Your task to perform on an android device: clear all cookies in the chrome app Image 0: 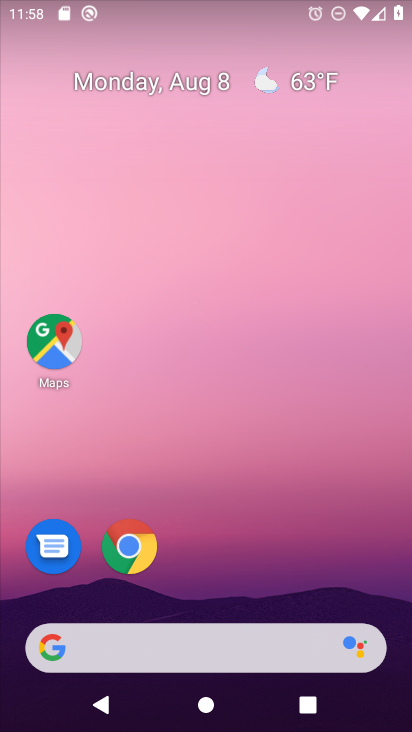
Step 0: drag from (233, 586) to (275, 177)
Your task to perform on an android device: clear all cookies in the chrome app Image 1: 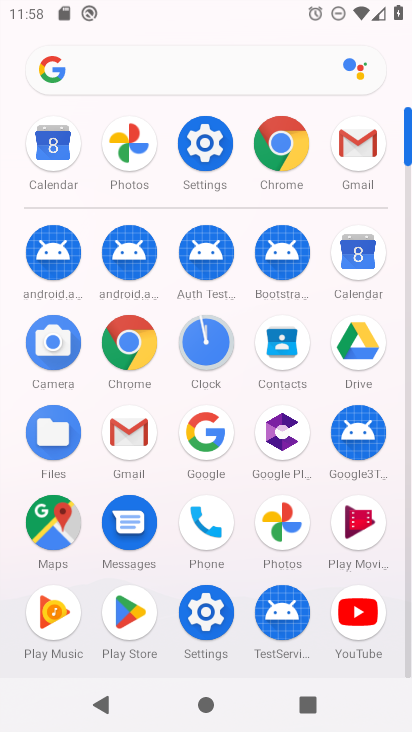
Step 1: click (278, 133)
Your task to perform on an android device: clear all cookies in the chrome app Image 2: 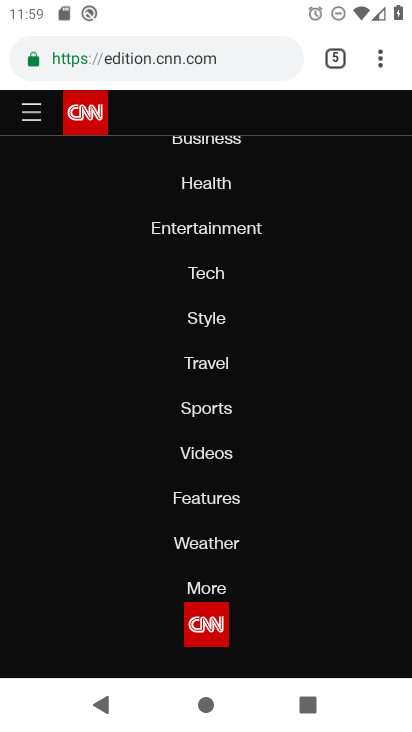
Step 2: click (379, 54)
Your task to perform on an android device: clear all cookies in the chrome app Image 3: 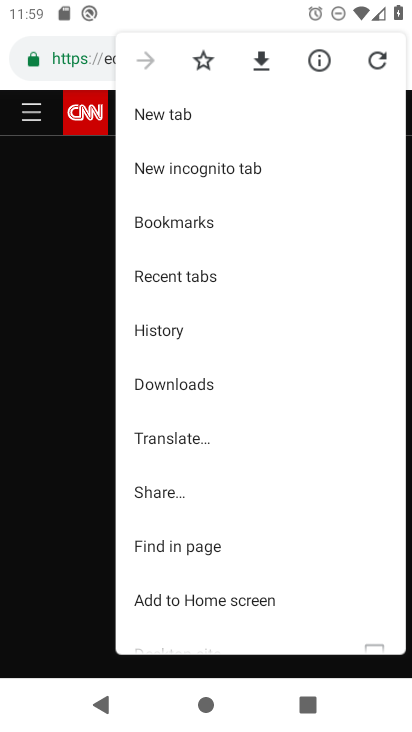
Step 3: click (189, 329)
Your task to perform on an android device: clear all cookies in the chrome app Image 4: 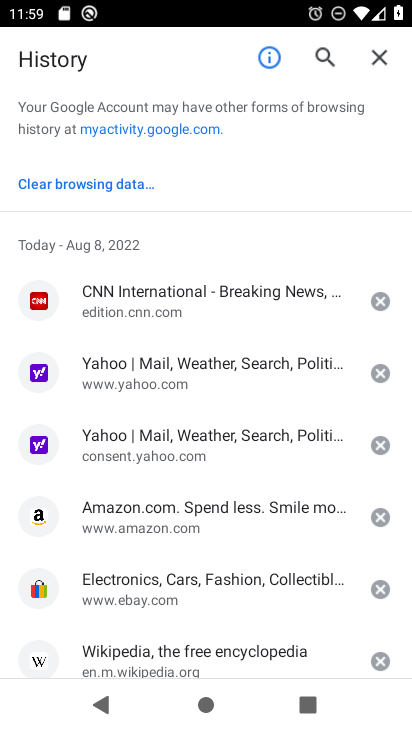
Step 4: click (83, 178)
Your task to perform on an android device: clear all cookies in the chrome app Image 5: 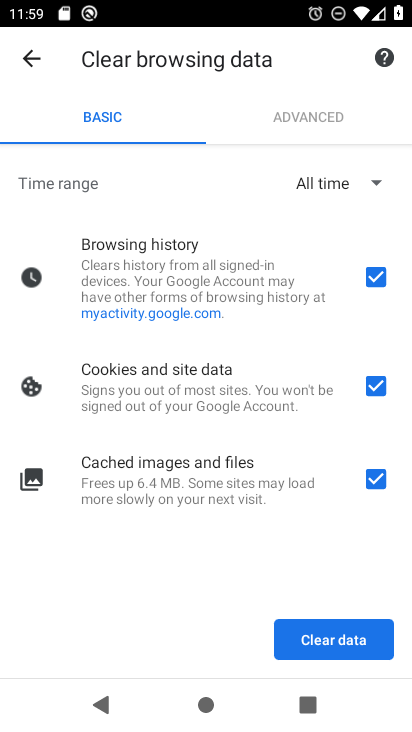
Step 5: click (375, 275)
Your task to perform on an android device: clear all cookies in the chrome app Image 6: 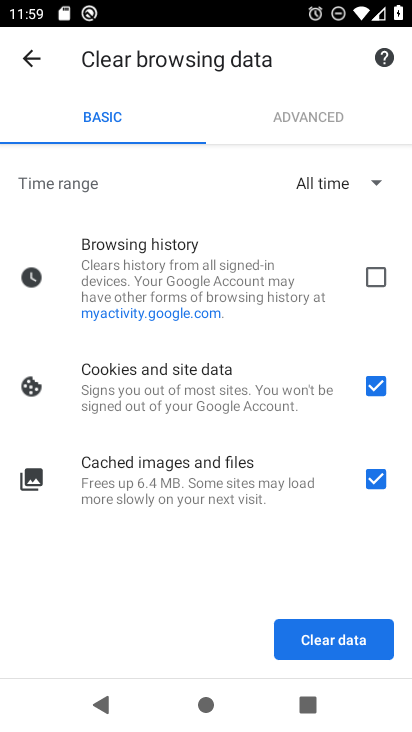
Step 6: click (374, 482)
Your task to perform on an android device: clear all cookies in the chrome app Image 7: 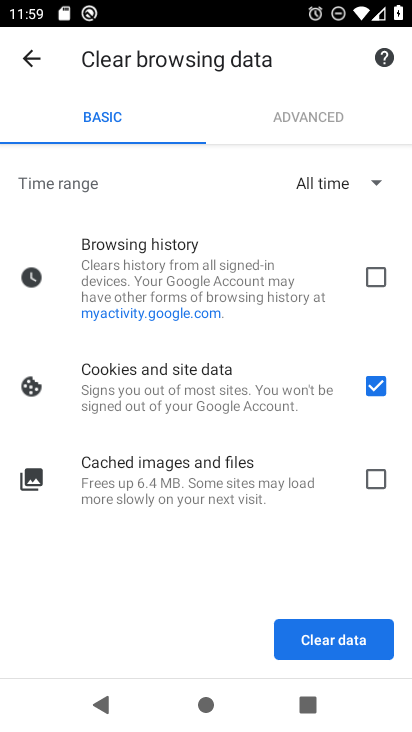
Step 7: click (336, 648)
Your task to perform on an android device: clear all cookies in the chrome app Image 8: 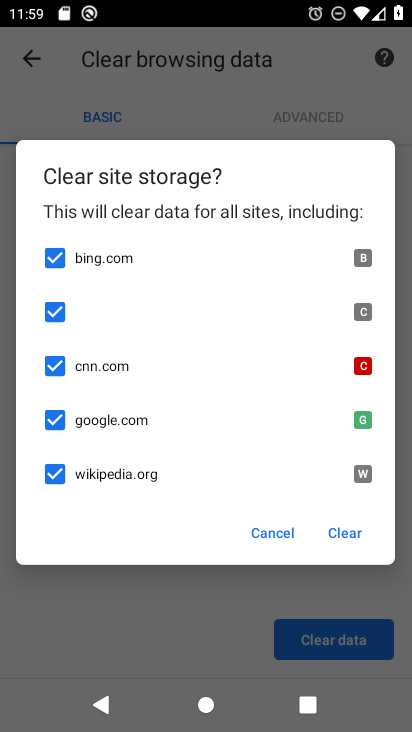
Step 8: click (336, 532)
Your task to perform on an android device: clear all cookies in the chrome app Image 9: 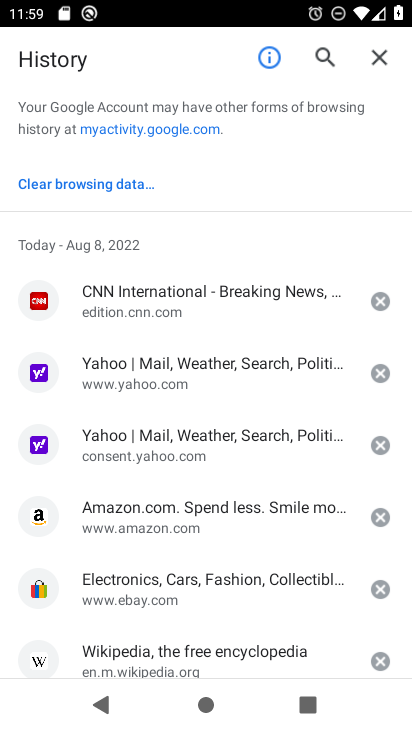
Step 9: task complete